Your task to perform on an android device: turn on notifications settings in the gmail app Image 0: 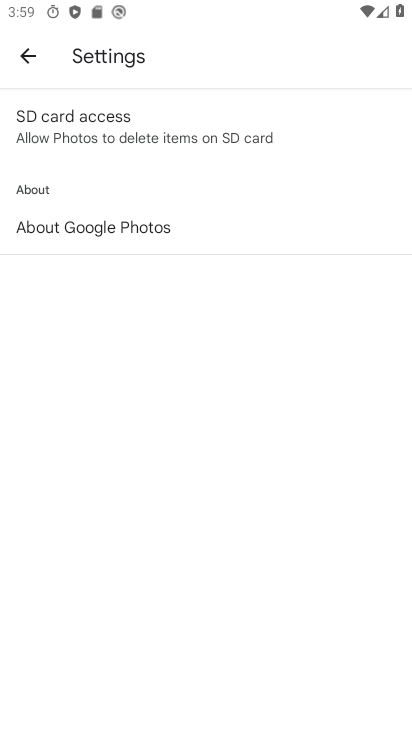
Step 0: press home button
Your task to perform on an android device: turn on notifications settings in the gmail app Image 1: 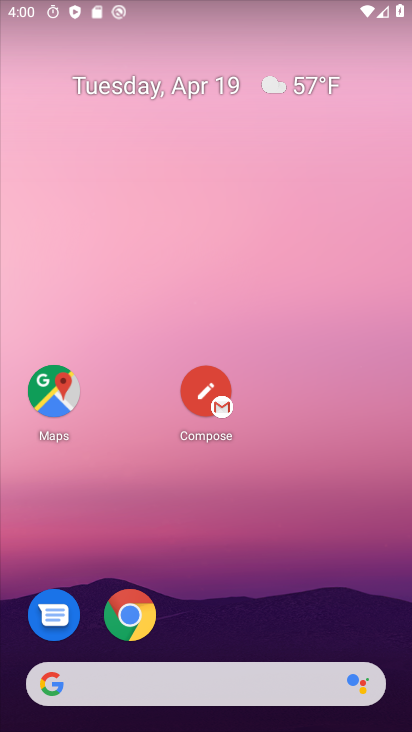
Step 1: drag from (308, 430) to (288, 55)
Your task to perform on an android device: turn on notifications settings in the gmail app Image 2: 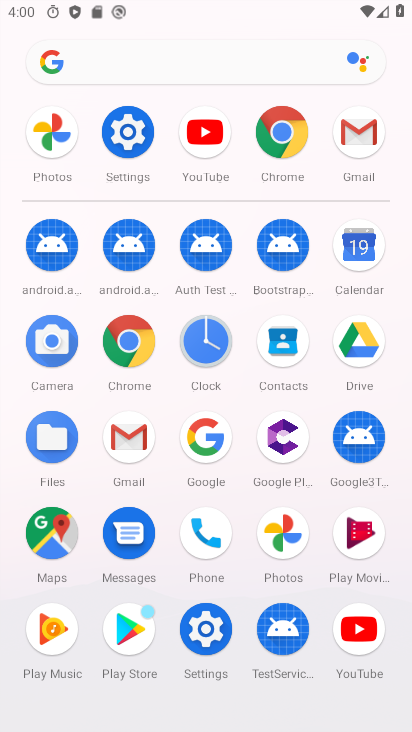
Step 2: click (130, 437)
Your task to perform on an android device: turn on notifications settings in the gmail app Image 3: 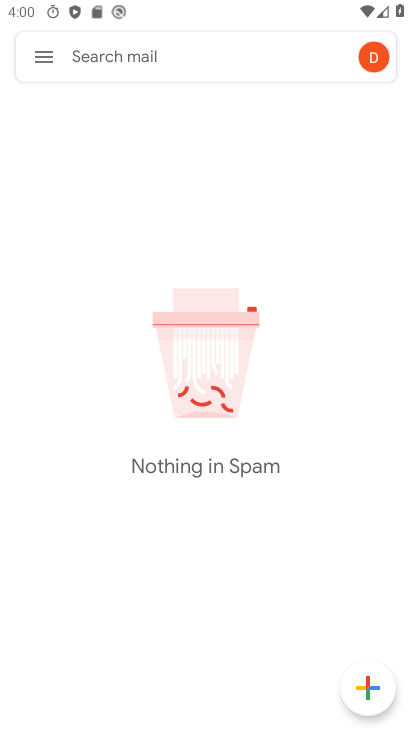
Step 3: click (39, 54)
Your task to perform on an android device: turn on notifications settings in the gmail app Image 4: 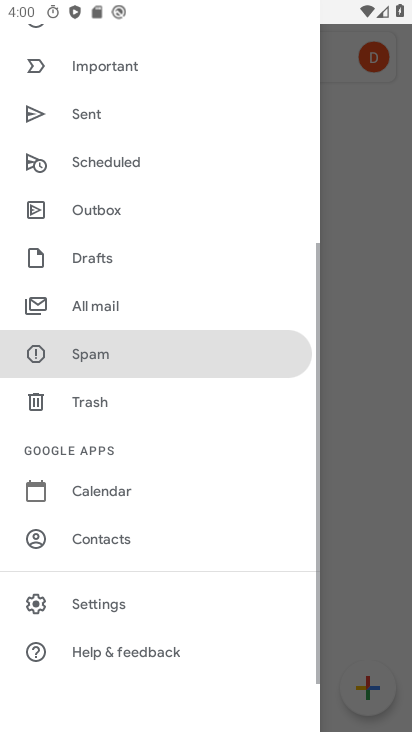
Step 4: drag from (169, 583) to (186, 131)
Your task to perform on an android device: turn on notifications settings in the gmail app Image 5: 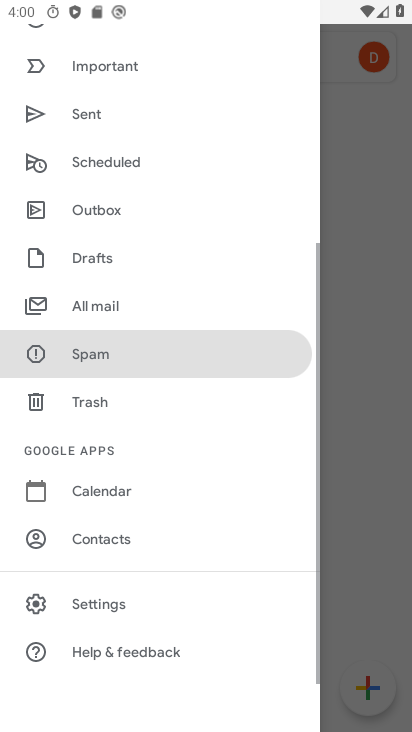
Step 5: click (149, 607)
Your task to perform on an android device: turn on notifications settings in the gmail app Image 6: 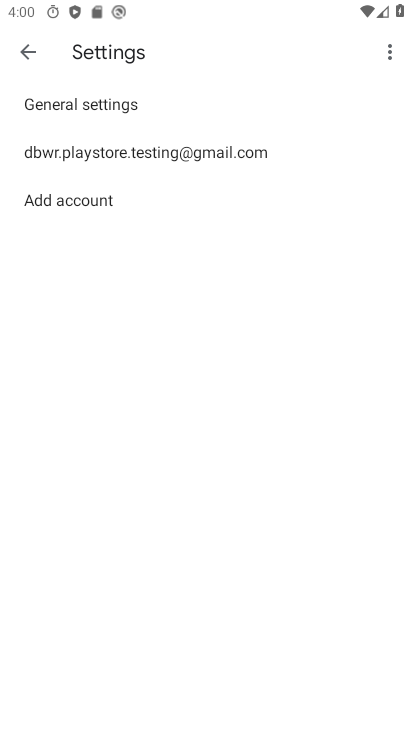
Step 6: click (169, 156)
Your task to perform on an android device: turn on notifications settings in the gmail app Image 7: 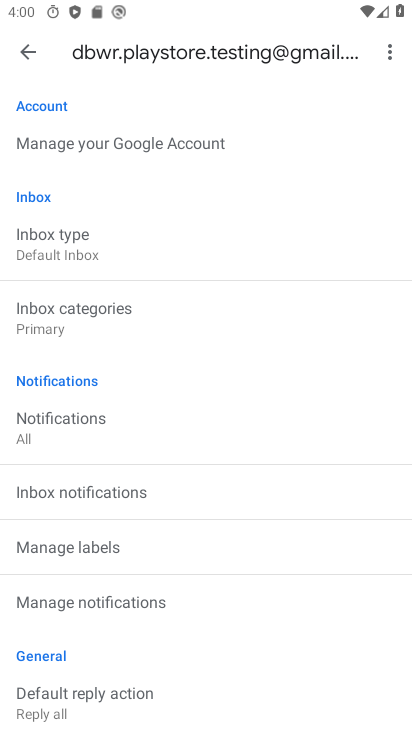
Step 7: click (98, 603)
Your task to perform on an android device: turn on notifications settings in the gmail app Image 8: 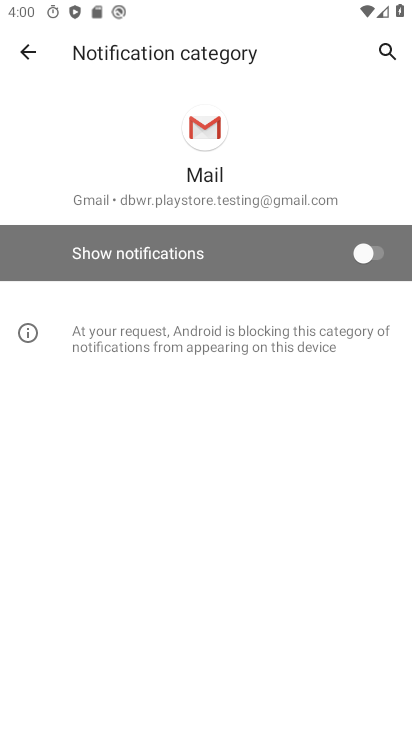
Step 8: click (378, 252)
Your task to perform on an android device: turn on notifications settings in the gmail app Image 9: 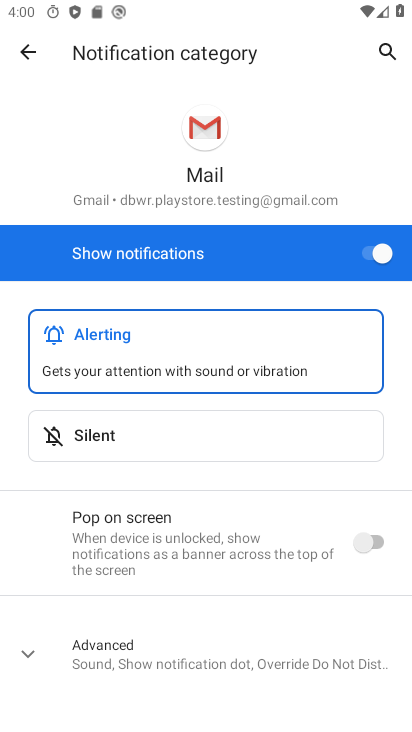
Step 9: task complete